Your task to perform on an android device: Go to Reddit.com Image 0: 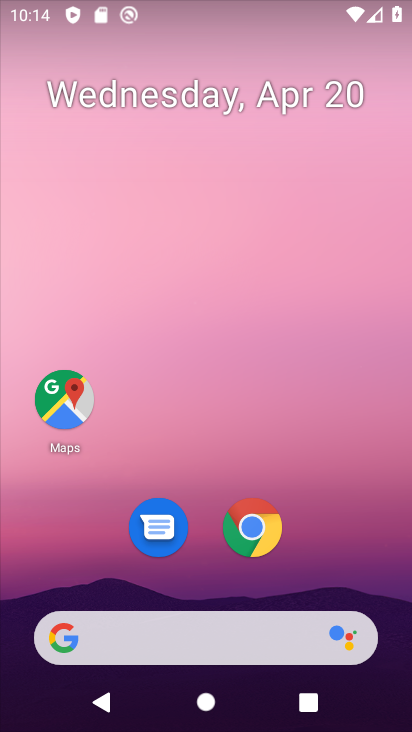
Step 0: click (262, 532)
Your task to perform on an android device: Go to Reddit.com Image 1: 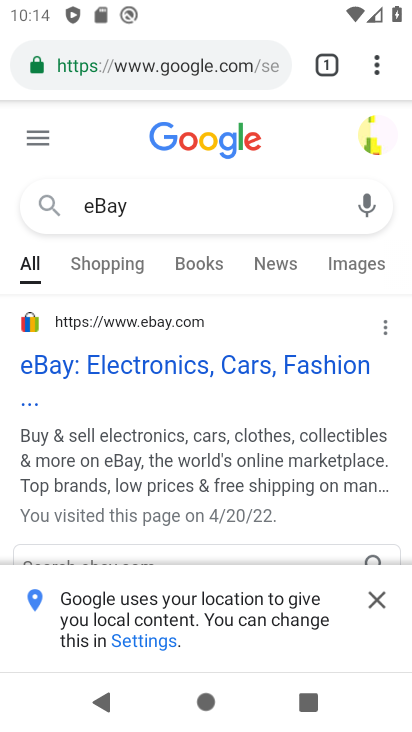
Step 1: click (190, 69)
Your task to perform on an android device: Go to Reddit.com Image 2: 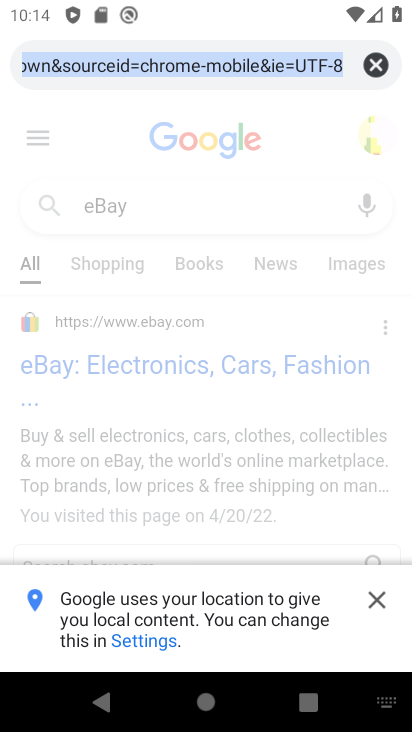
Step 2: type "reddit.com"
Your task to perform on an android device: Go to Reddit.com Image 3: 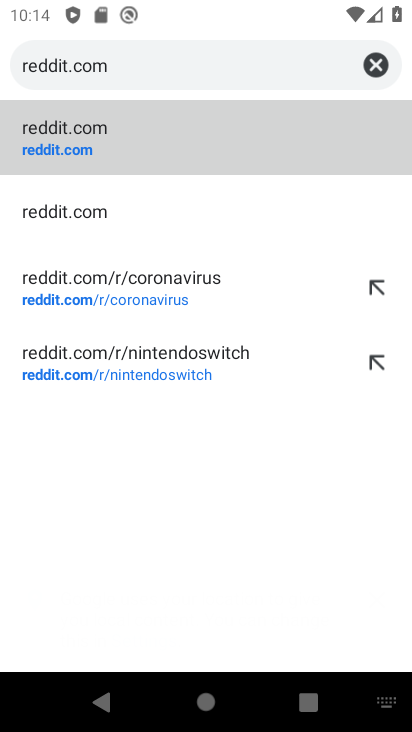
Step 3: click (76, 143)
Your task to perform on an android device: Go to Reddit.com Image 4: 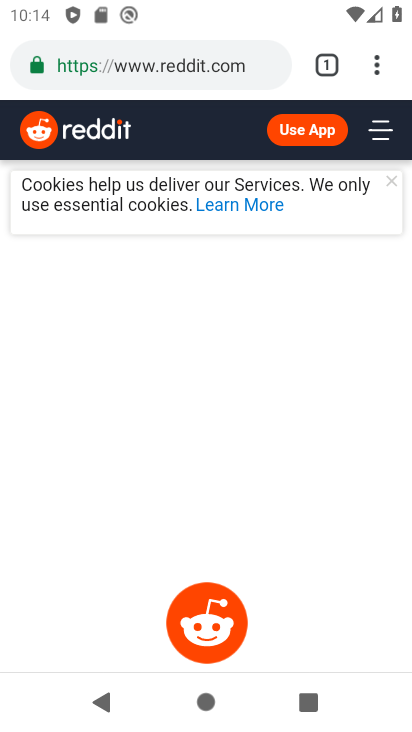
Step 4: task complete